Your task to perform on an android device: toggle priority inbox in the gmail app Image 0: 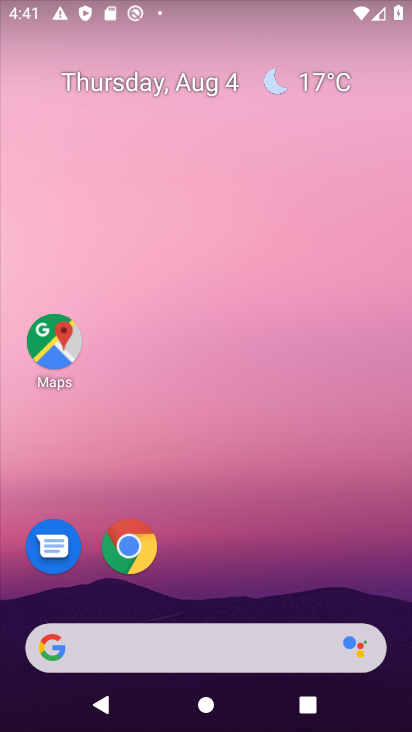
Step 0: drag from (234, 570) to (234, 182)
Your task to perform on an android device: toggle priority inbox in the gmail app Image 1: 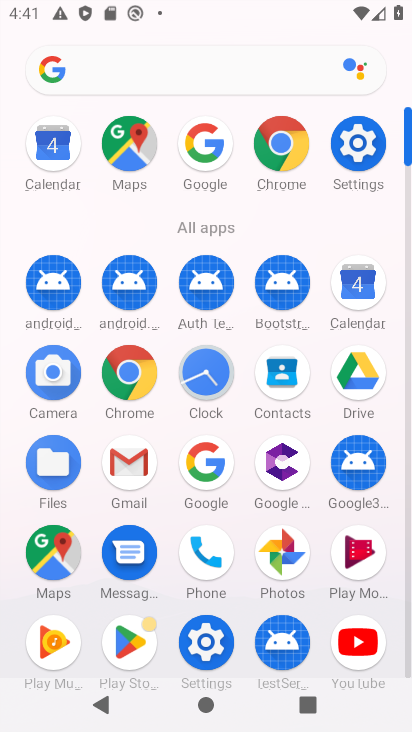
Step 1: click (132, 464)
Your task to perform on an android device: toggle priority inbox in the gmail app Image 2: 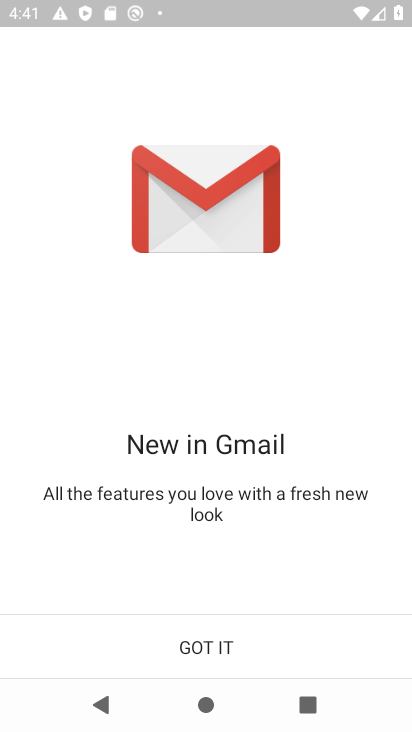
Step 2: click (176, 657)
Your task to perform on an android device: toggle priority inbox in the gmail app Image 3: 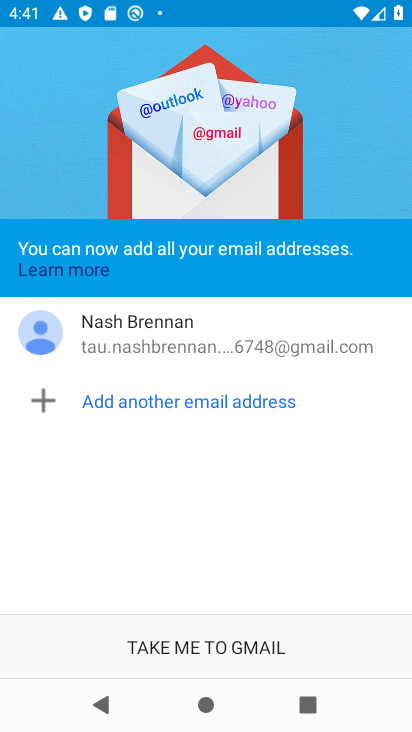
Step 3: click (196, 649)
Your task to perform on an android device: toggle priority inbox in the gmail app Image 4: 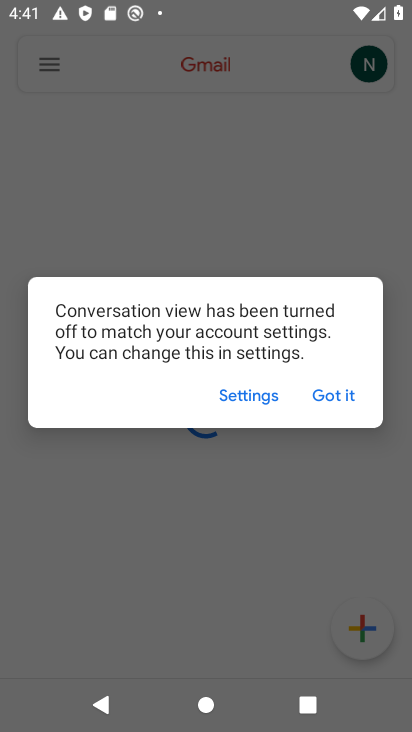
Step 4: click (334, 387)
Your task to perform on an android device: toggle priority inbox in the gmail app Image 5: 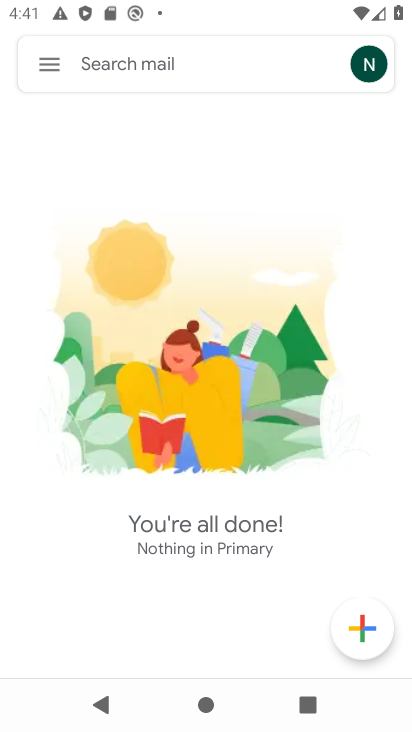
Step 5: click (52, 69)
Your task to perform on an android device: toggle priority inbox in the gmail app Image 6: 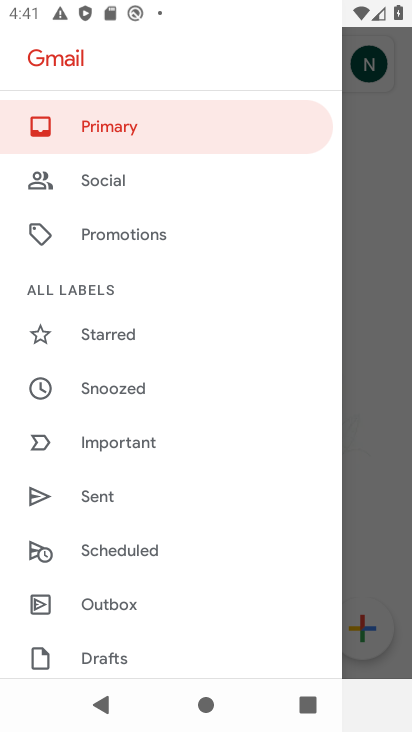
Step 6: drag from (113, 482) to (154, 226)
Your task to perform on an android device: toggle priority inbox in the gmail app Image 7: 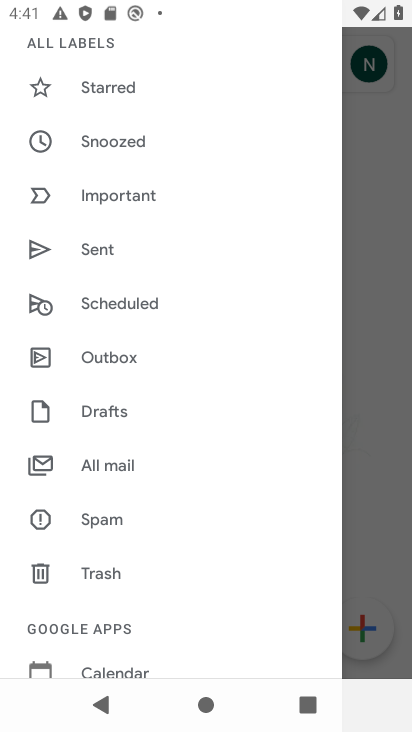
Step 7: drag from (135, 625) to (164, 340)
Your task to perform on an android device: toggle priority inbox in the gmail app Image 8: 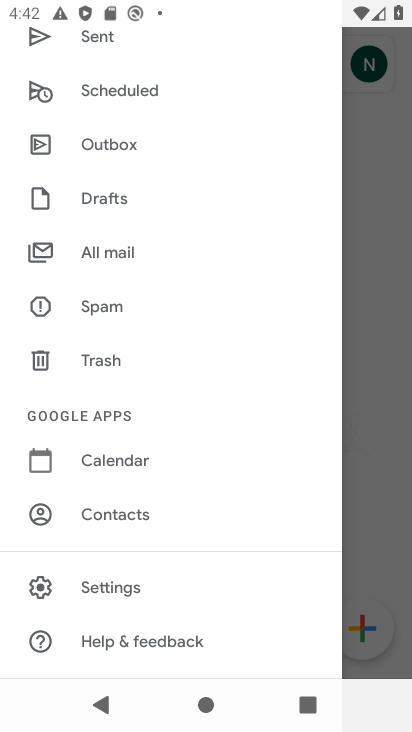
Step 8: click (98, 590)
Your task to perform on an android device: toggle priority inbox in the gmail app Image 9: 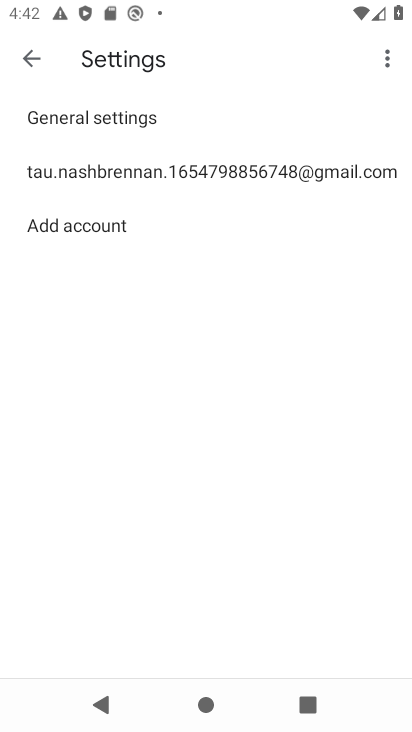
Step 9: click (154, 172)
Your task to perform on an android device: toggle priority inbox in the gmail app Image 10: 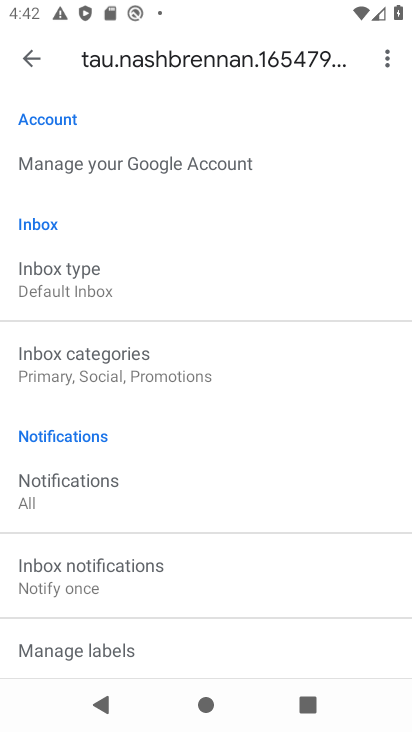
Step 10: click (65, 276)
Your task to perform on an android device: toggle priority inbox in the gmail app Image 11: 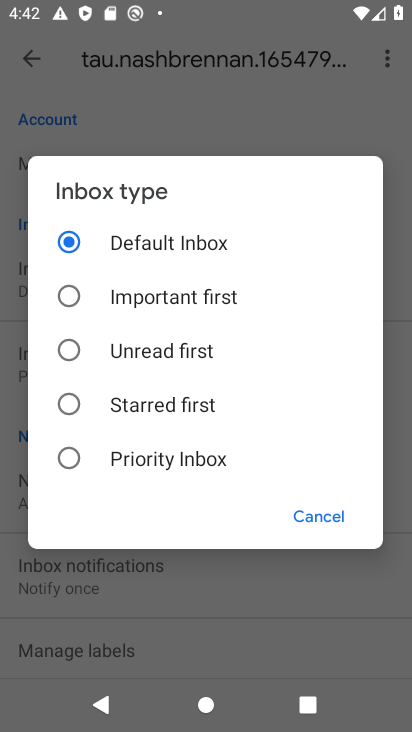
Step 11: click (60, 458)
Your task to perform on an android device: toggle priority inbox in the gmail app Image 12: 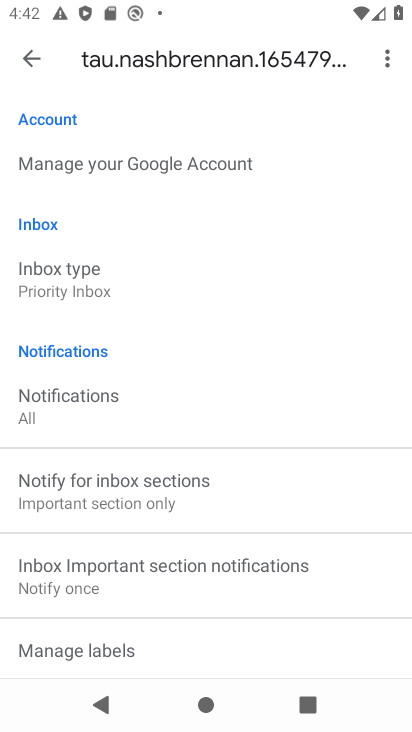
Step 12: task complete